Your task to perform on an android device: Open Reddit.com Image 0: 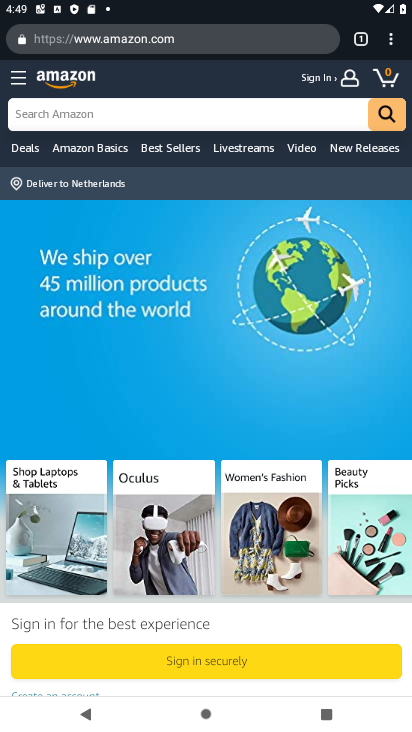
Step 0: press home button
Your task to perform on an android device: Open Reddit.com Image 1: 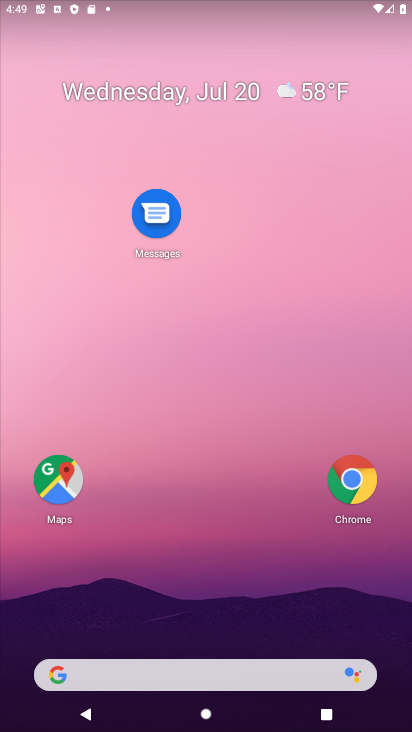
Step 1: click (348, 485)
Your task to perform on an android device: Open Reddit.com Image 2: 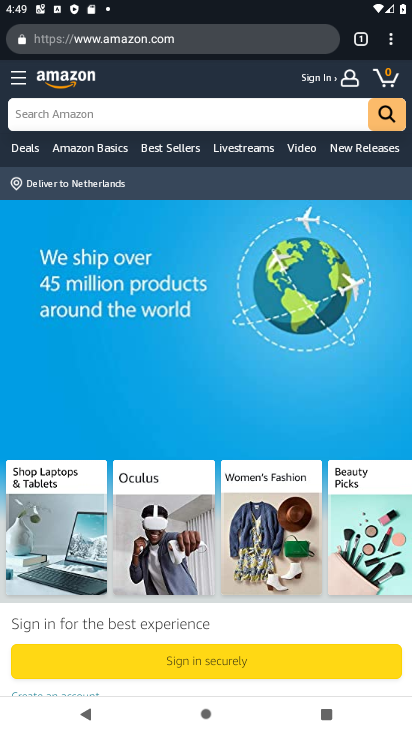
Step 2: click (151, 39)
Your task to perform on an android device: Open Reddit.com Image 3: 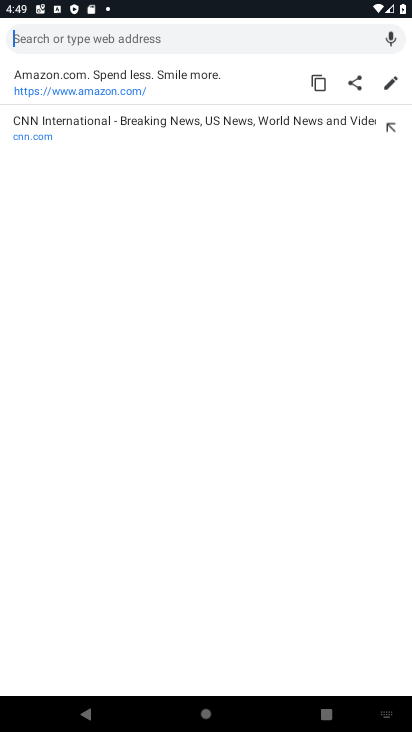
Step 3: type "www.reddit.com"
Your task to perform on an android device: Open Reddit.com Image 4: 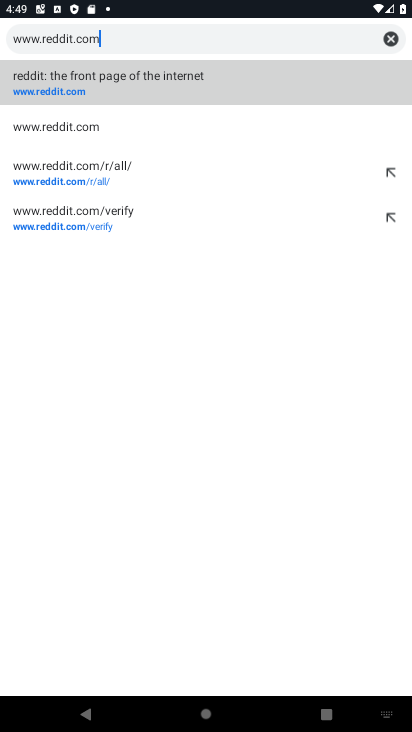
Step 4: click (68, 91)
Your task to perform on an android device: Open Reddit.com Image 5: 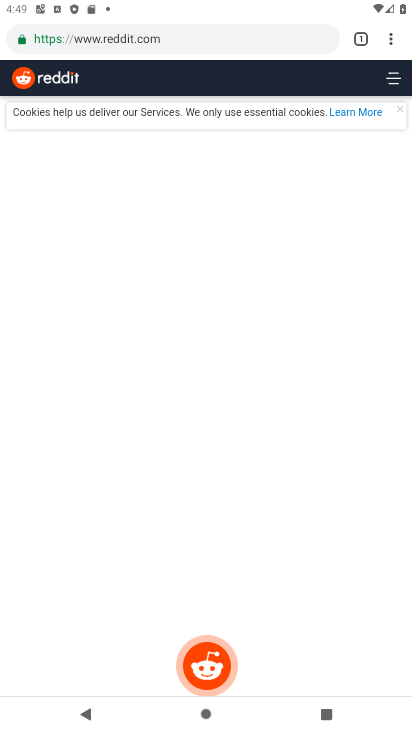
Step 5: task complete